Your task to perform on an android device: toggle show notifications on the lock screen Image 0: 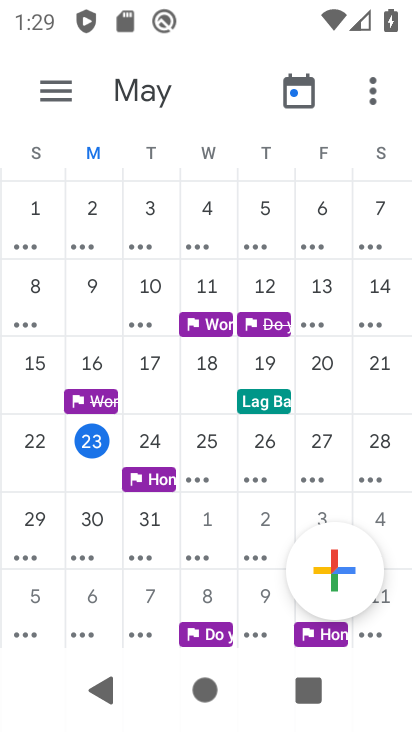
Step 0: press home button
Your task to perform on an android device: toggle show notifications on the lock screen Image 1: 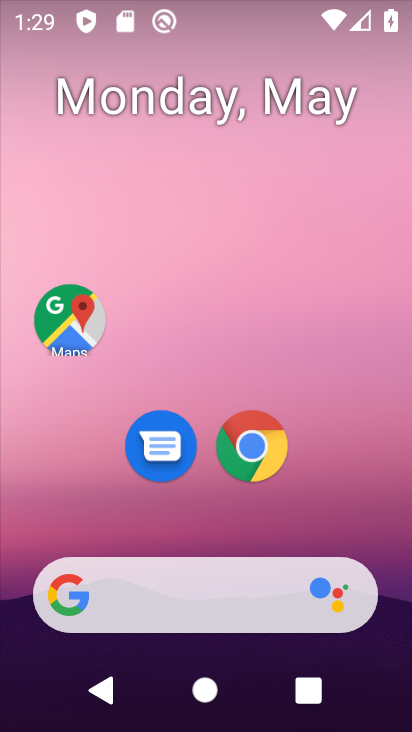
Step 1: drag from (197, 572) to (215, 83)
Your task to perform on an android device: toggle show notifications on the lock screen Image 2: 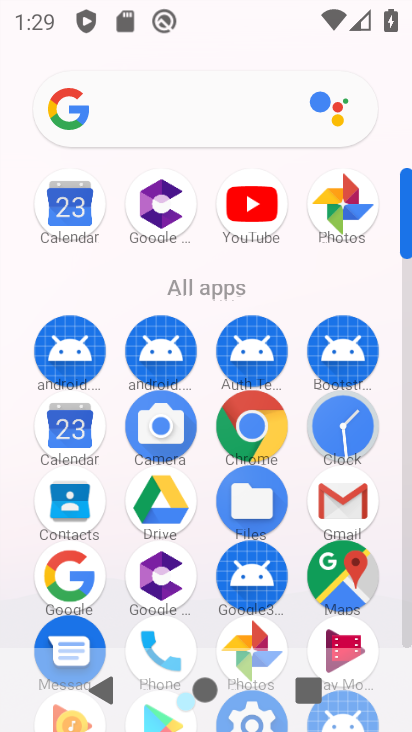
Step 2: drag from (220, 609) to (214, 251)
Your task to perform on an android device: toggle show notifications on the lock screen Image 3: 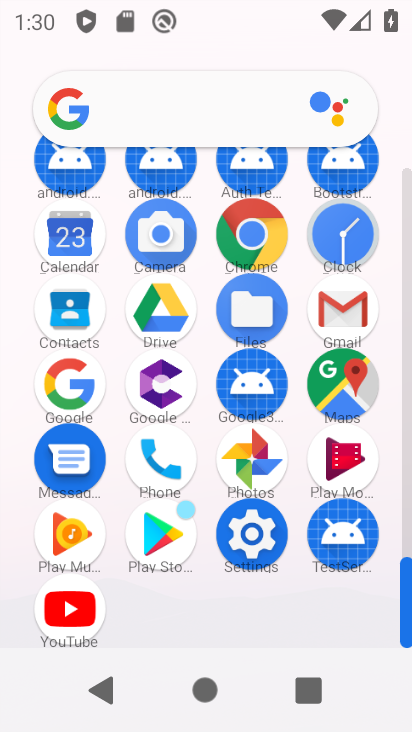
Step 3: click (250, 554)
Your task to perform on an android device: toggle show notifications on the lock screen Image 4: 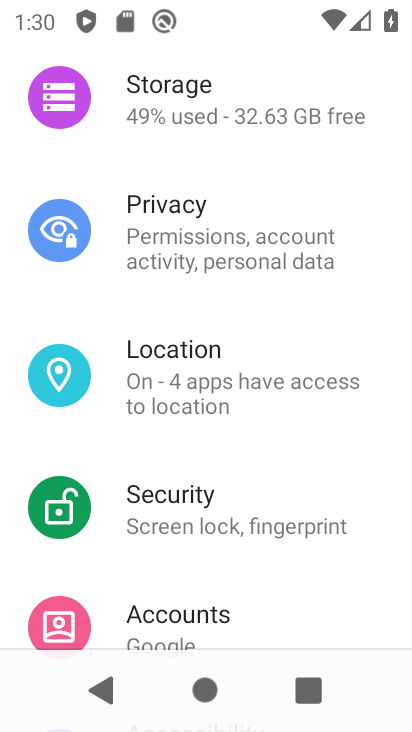
Step 4: drag from (207, 234) to (213, 701)
Your task to perform on an android device: toggle show notifications on the lock screen Image 5: 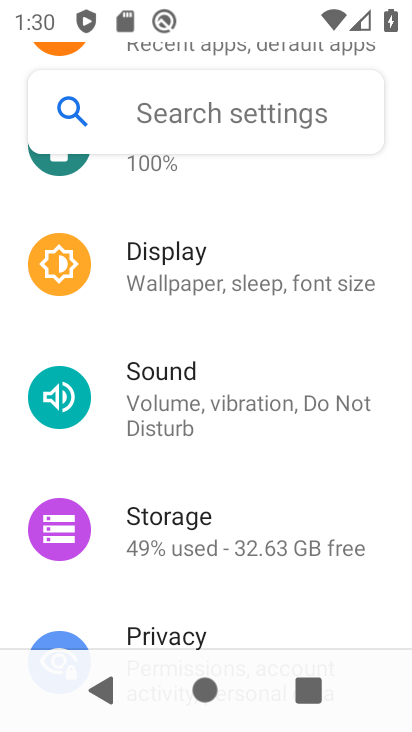
Step 5: drag from (213, 279) to (234, 596)
Your task to perform on an android device: toggle show notifications on the lock screen Image 6: 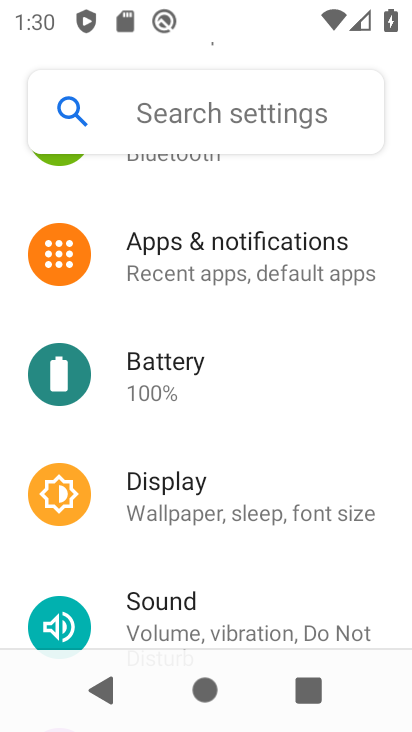
Step 6: click (253, 268)
Your task to perform on an android device: toggle show notifications on the lock screen Image 7: 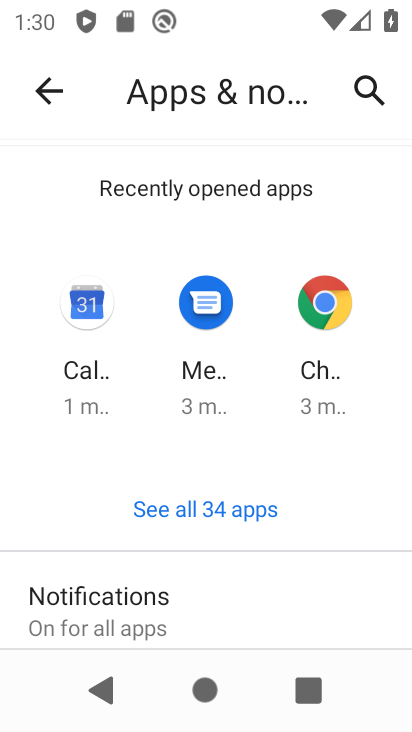
Step 7: drag from (223, 558) to (250, 93)
Your task to perform on an android device: toggle show notifications on the lock screen Image 8: 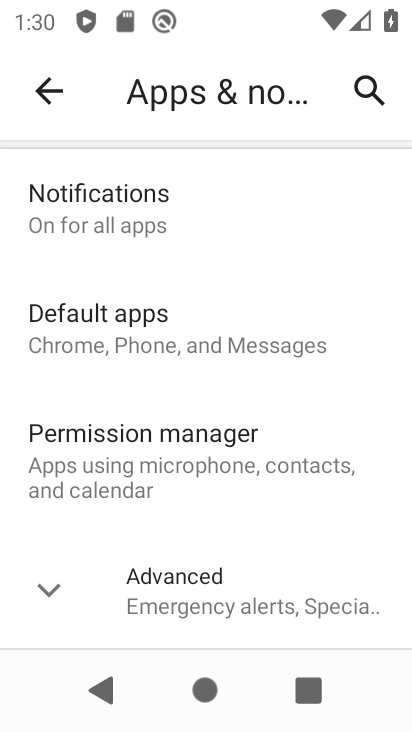
Step 8: click (209, 593)
Your task to perform on an android device: toggle show notifications on the lock screen Image 9: 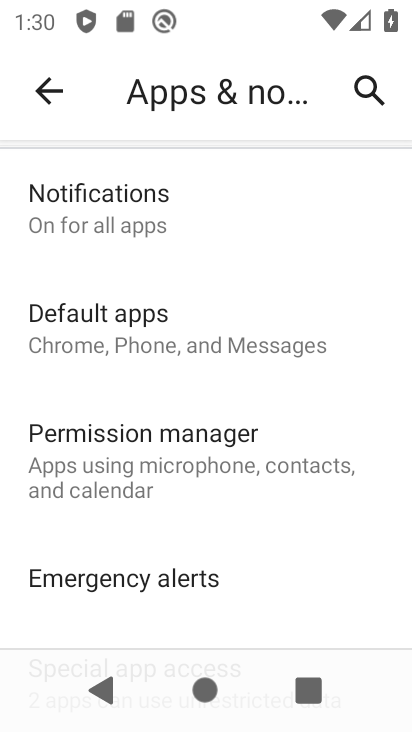
Step 9: click (122, 202)
Your task to perform on an android device: toggle show notifications on the lock screen Image 10: 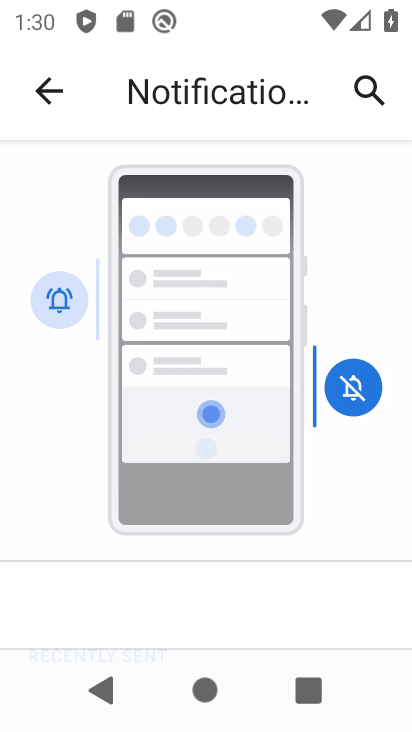
Step 10: drag from (229, 511) to (204, 64)
Your task to perform on an android device: toggle show notifications on the lock screen Image 11: 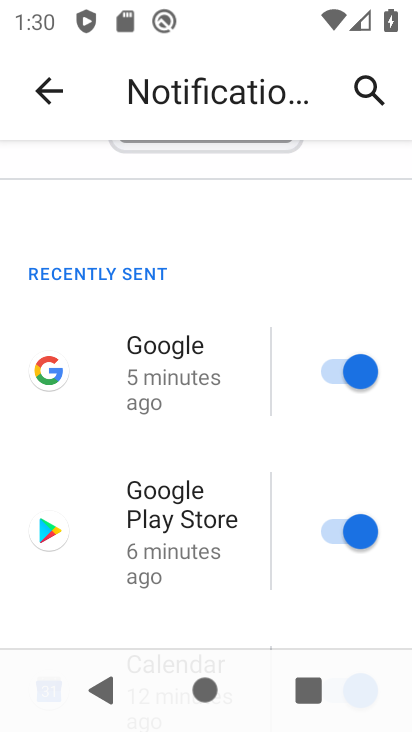
Step 11: drag from (232, 567) to (205, 194)
Your task to perform on an android device: toggle show notifications on the lock screen Image 12: 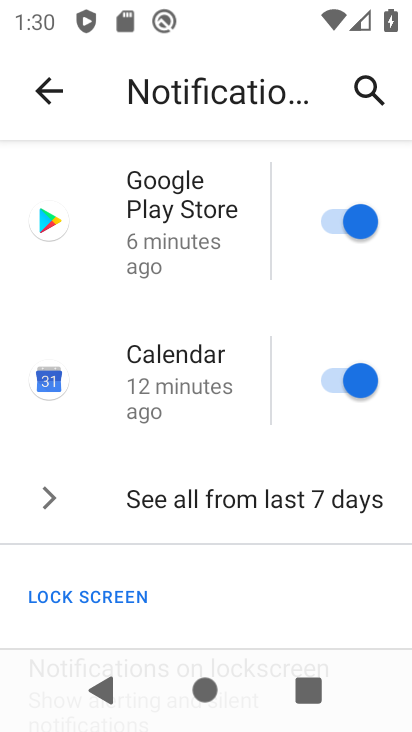
Step 12: drag from (204, 556) to (186, 125)
Your task to perform on an android device: toggle show notifications on the lock screen Image 13: 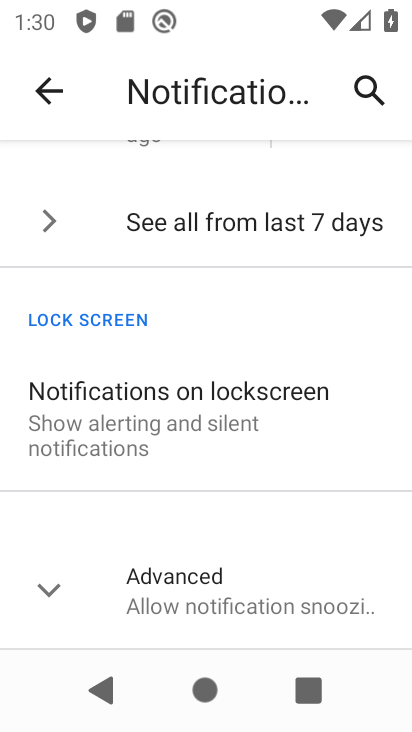
Step 13: click (166, 469)
Your task to perform on an android device: toggle show notifications on the lock screen Image 14: 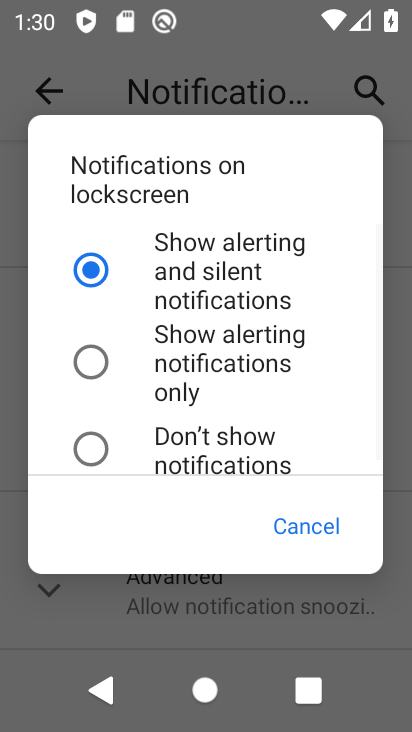
Step 14: click (198, 253)
Your task to perform on an android device: toggle show notifications on the lock screen Image 15: 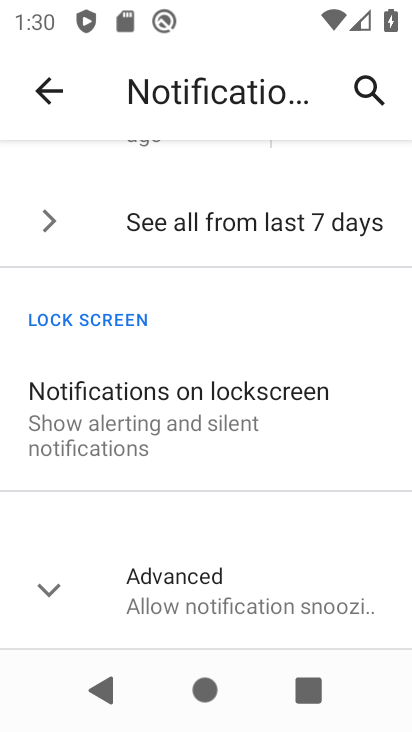
Step 15: task complete